Your task to perform on an android device: change the clock display to digital Image 0: 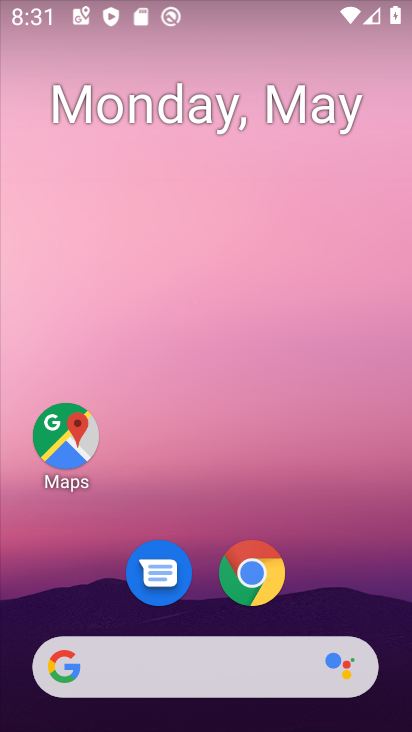
Step 0: drag from (347, 579) to (321, 97)
Your task to perform on an android device: change the clock display to digital Image 1: 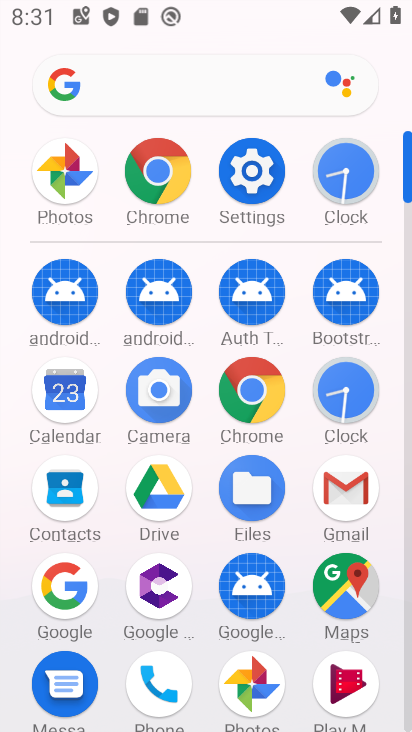
Step 1: click (338, 291)
Your task to perform on an android device: change the clock display to digital Image 2: 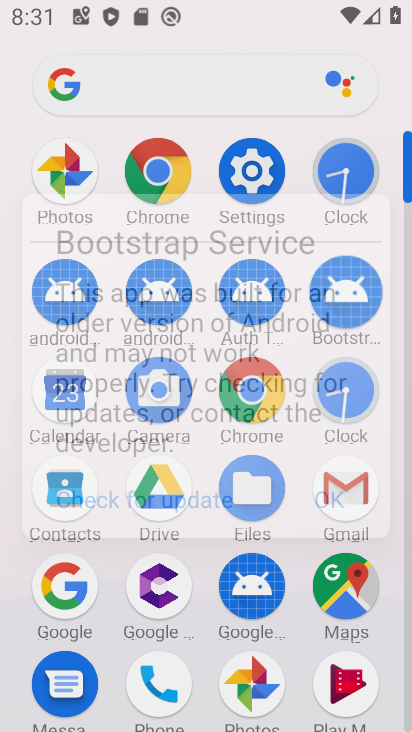
Step 2: click (347, 200)
Your task to perform on an android device: change the clock display to digital Image 3: 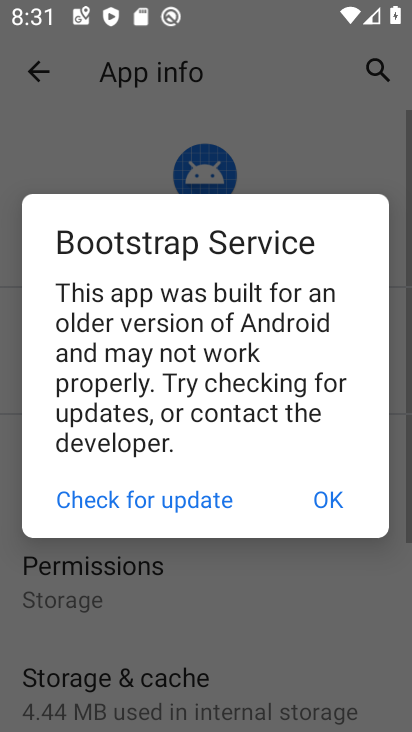
Step 3: click (330, 493)
Your task to perform on an android device: change the clock display to digital Image 4: 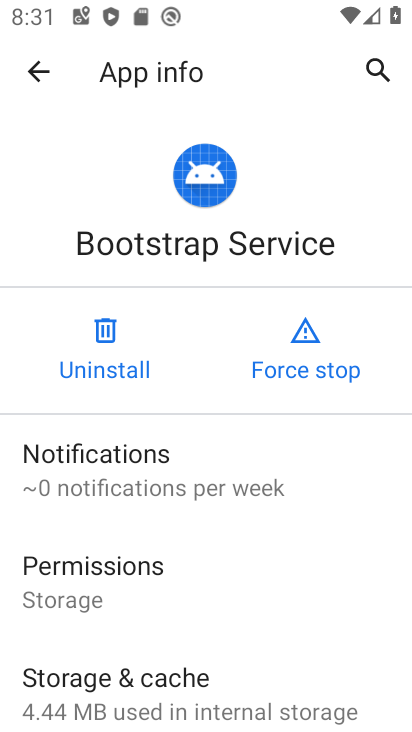
Step 4: press home button
Your task to perform on an android device: change the clock display to digital Image 5: 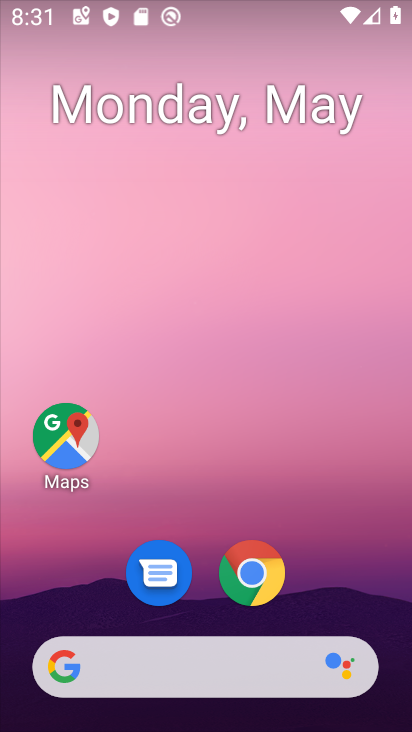
Step 5: drag from (325, 548) to (329, 175)
Your task to perform on an android device: change the clock display to digital Image 6: 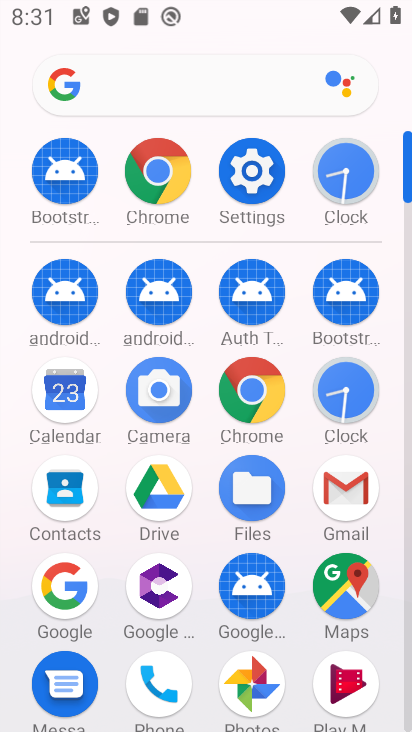
Step 6: click (247, 191)
Your task to perform on an android device: change the clock display to digital Image 7: 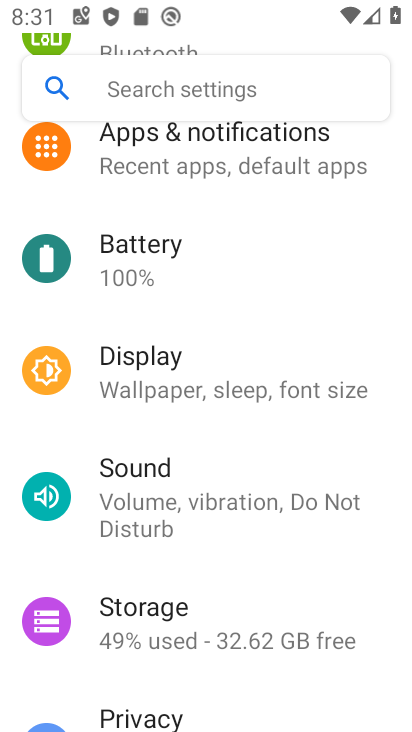
Step 7: press home button
Your task to perform on an android device: change the clock display to digital Image 8: 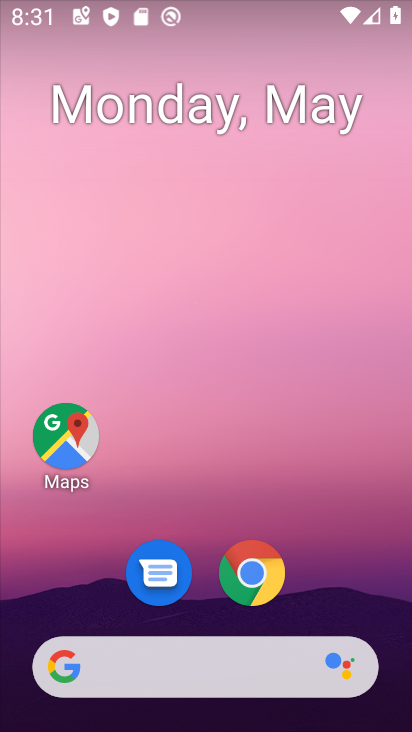
Step 8: drag from (354, 582) to (185, 76)
Your task to perform on an android device: change the clock display to digital Image 9: 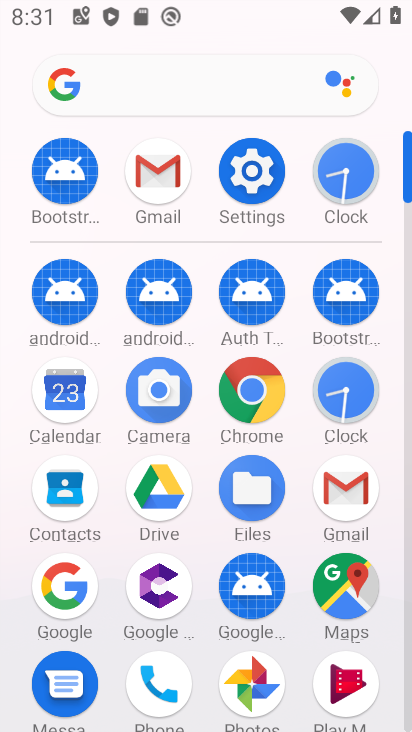
Step 9: click (348, 174)
Your task to perform on an android device: change the clock display to digital Image 10: 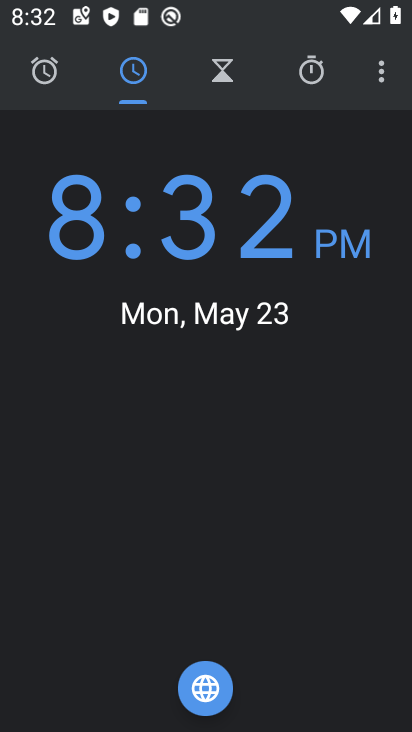
Step 10: click (389, 91)
Your task to perform on an android device: change the clock display to digital Image 11: 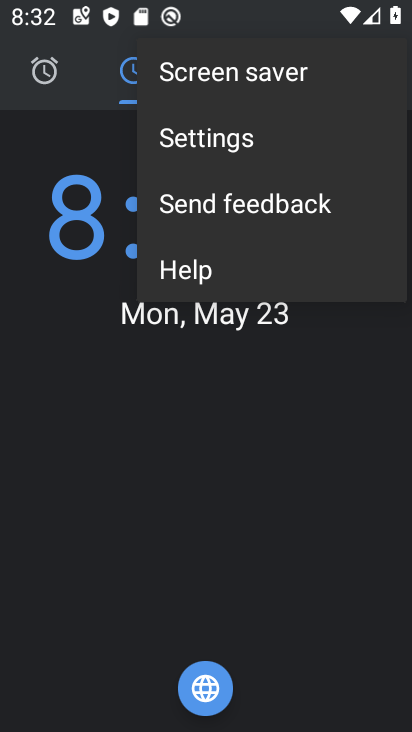
Step 11: click (255, 148)
Your task to perform on an android device: change the clock display to digital Image 12: 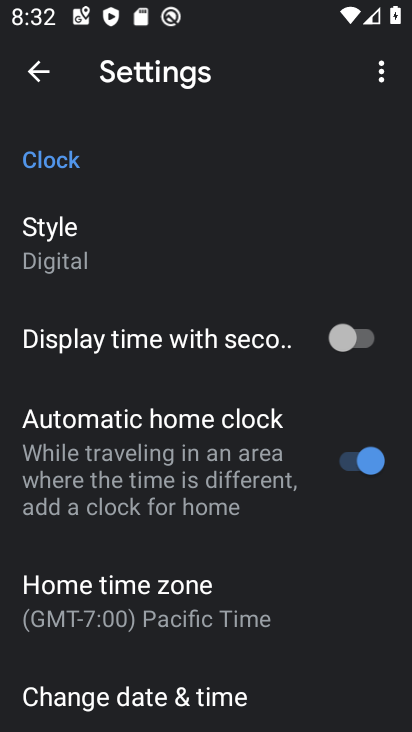
Step 12: click (147, 248)
Your task to perform on an android device: change the clock display to digital Image 13: 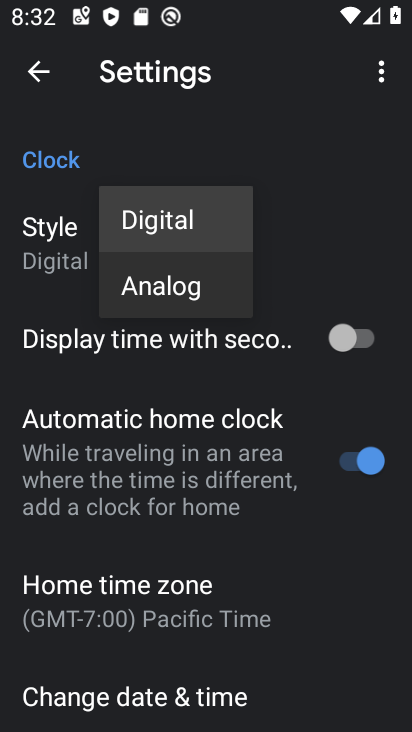
Step 13: task complete